Your task to perform on an android device: open app "Google Play Music" (install if not already installed) Image 0: 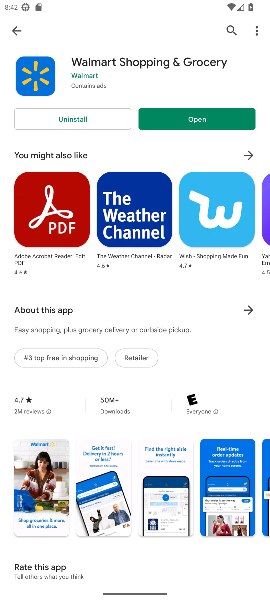
Step 0: press home button
Your task to perform on an android device: open app "Google Play Music" (install if not already installed) Image 1: 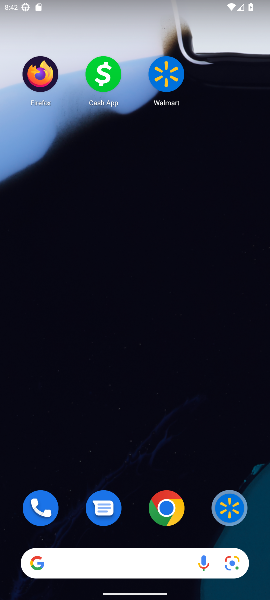
Step 1: drag from (156, 559) to (219, 47)
Your task to perform on an android device: open app "Google Play Music" (install if not already installed) Image 2: 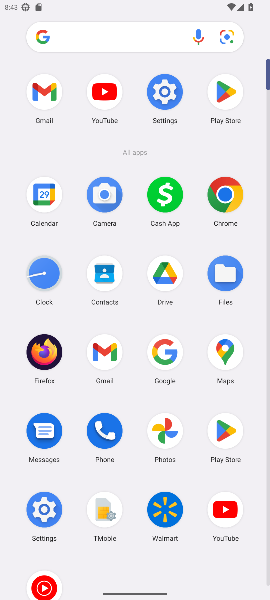
Step 2: click (216, 89)
Your task to perform on an android device: open app "Google Play Music" (install if not already installed) Image 3: 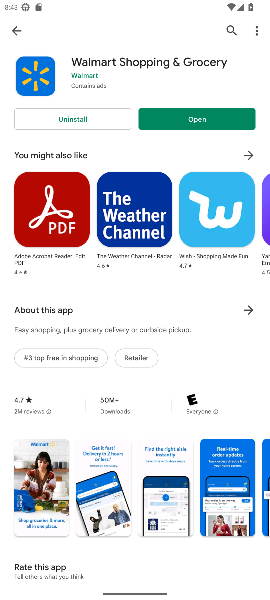
Step 3: click (226, 25)
Your task to perform on an android device: open app "Google Play Music" (install if not already installed) Image 4: 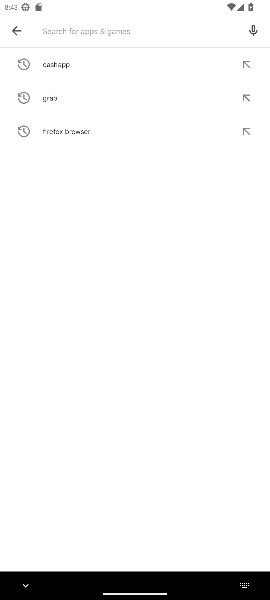
Step 4: type "Google play music"
Your task to perform on an android device: open app "Google Play Music" (install if not already installed) Image 5: 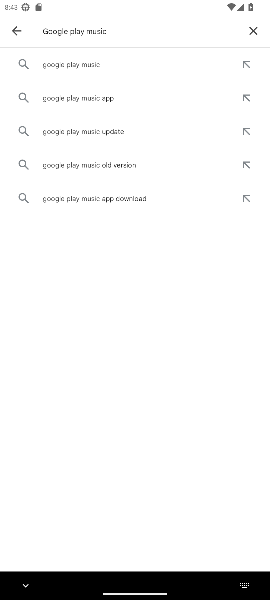
Step 5: click (104, 72)
Your task to perform on an android device: open app "Google Play Music" (install if not already installed) Image 6: 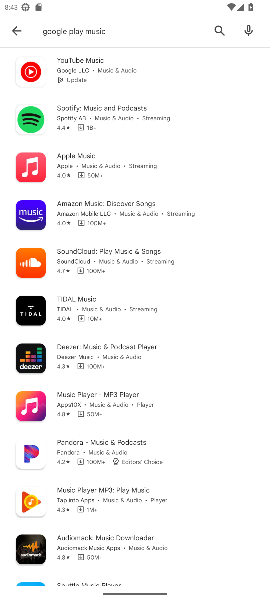
Step 6: task complete